Your task to perform on an android device: Open notification settings Image 0: 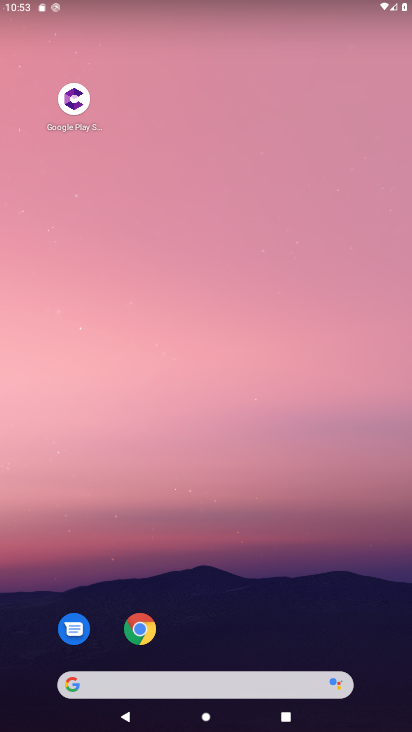
Step 0: drag from (225, 589) to (258, 61)
Your task to perform on an android device: Open notification settings Image 1: 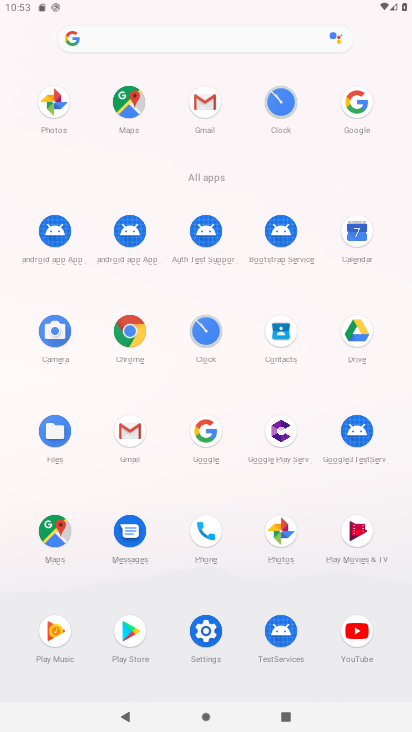
Step 1: click (208, 630)
Your task to perform on an android device: Open notification settings Image 2: 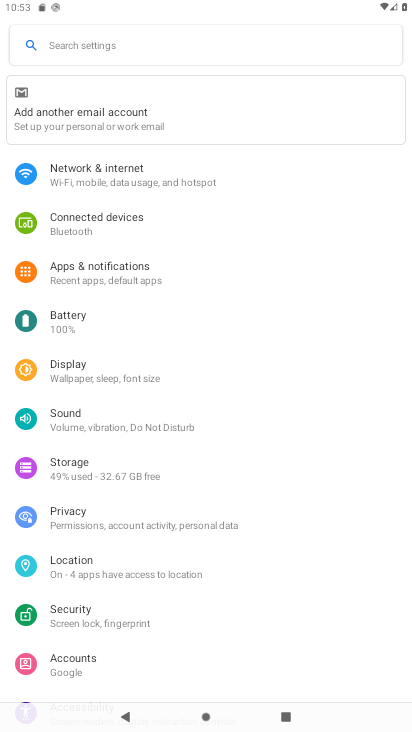
Step 2: task complete